Your task to perform on an android device: check data usage Image 0: 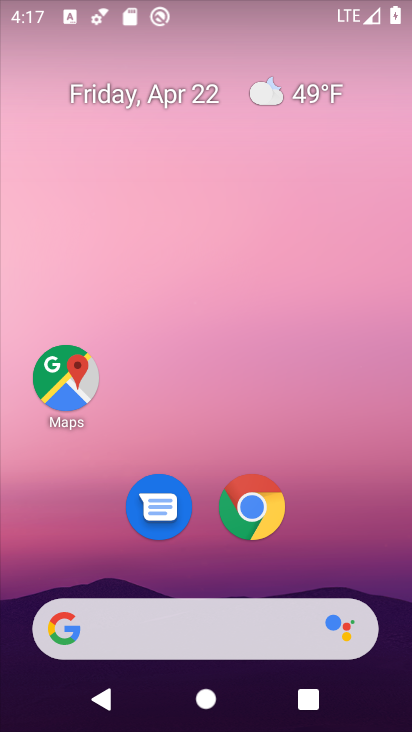
Step 0: drag from (393, 631) to (340, 140)
Your task to perform on an android device: check data usage Image 1: 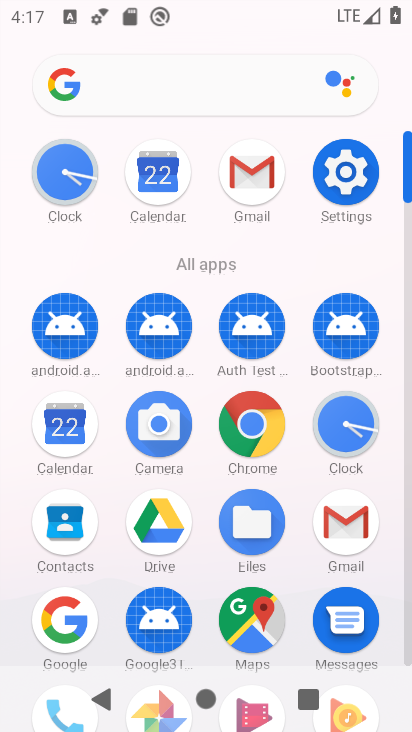
Step 1: click (405, 633)
Your task to perform on an android device: check data usage Image 2: 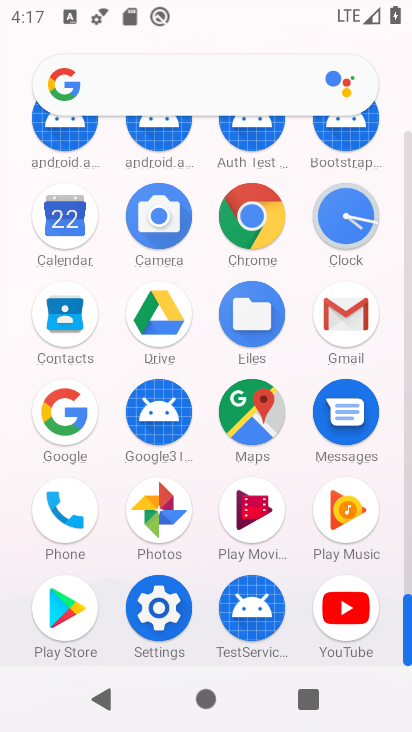
Step 2: click (160, 610)
Your task to perform on an android device: check data usage Image 3: 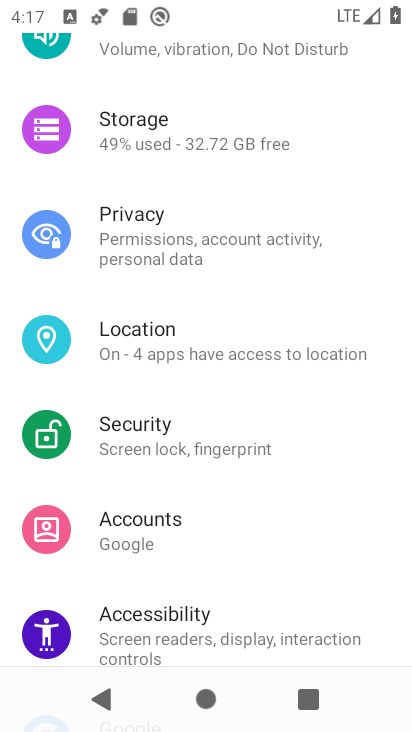
Step 3: drag from (347, 194) to (364, 563)
Your task to perform on an android device: check data usage Image 4: 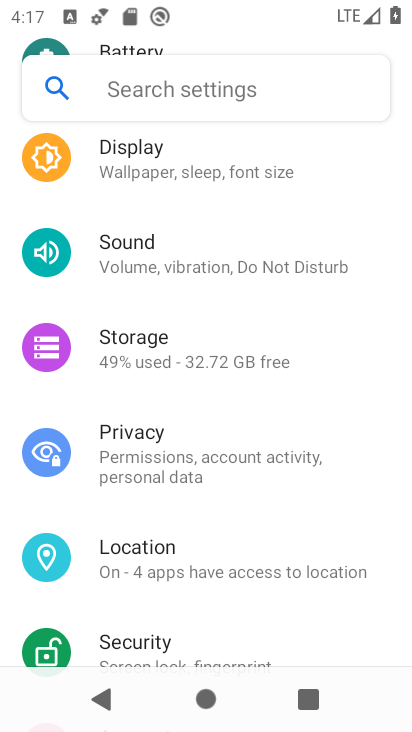
Step 4: drag from (347, 215) to (360, 532)
Your task to perform on an android device: check data usage Image 5: 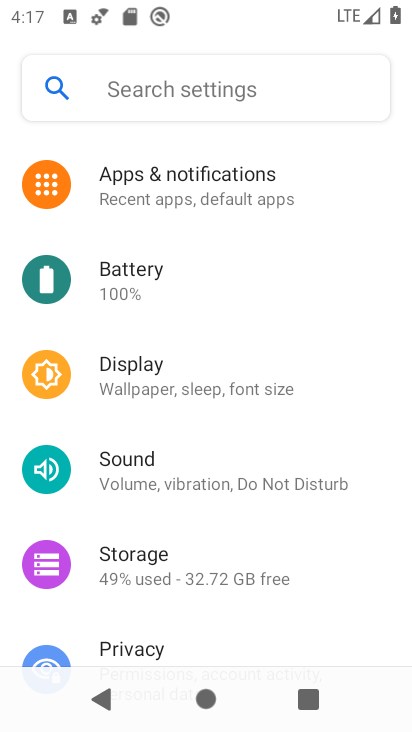
Step 5: drag from (352, 239) to (371, 518)
Your task to perform on an android device: check data usage Image 6: 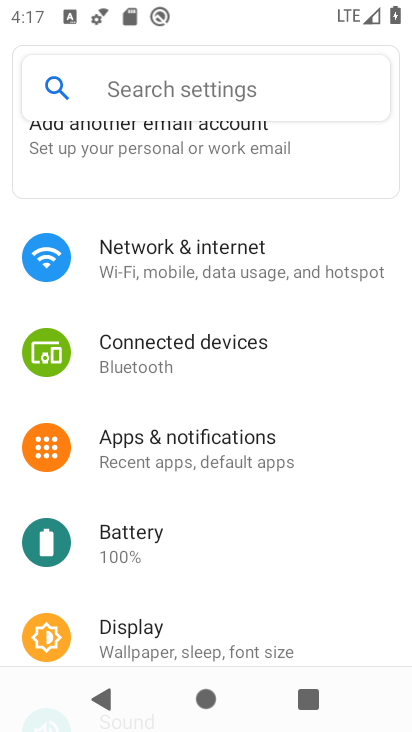
Step 6: click (150, 259)
Your task to perform on an android device: check data usage Image 7: 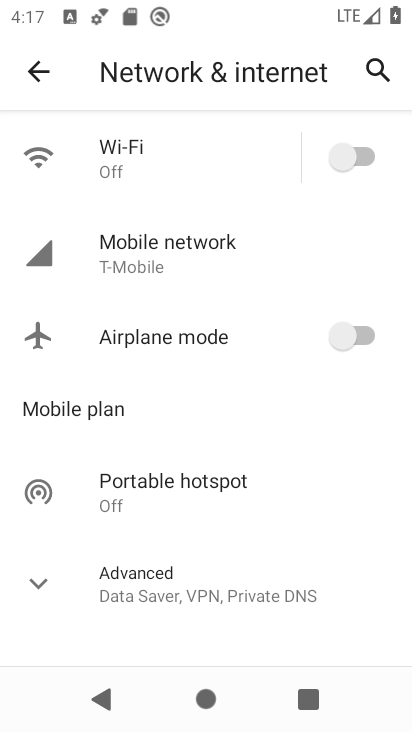
Step 7: click (133, 255)
Your task to perform on an android device: check data usage Image 8: 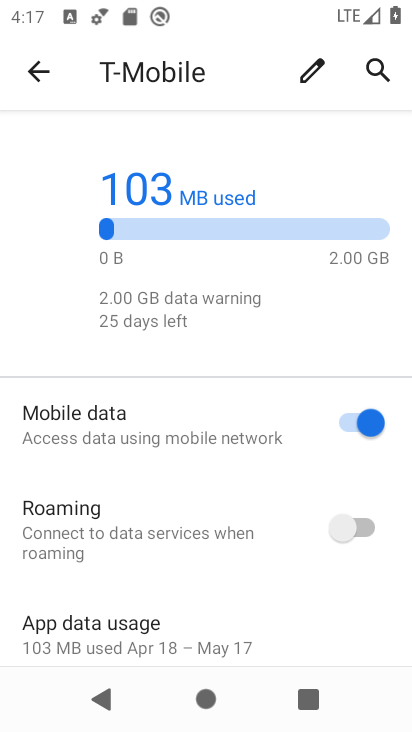
Step 8: task complete